Your task to perform on an android device: turn off location history Image 0: 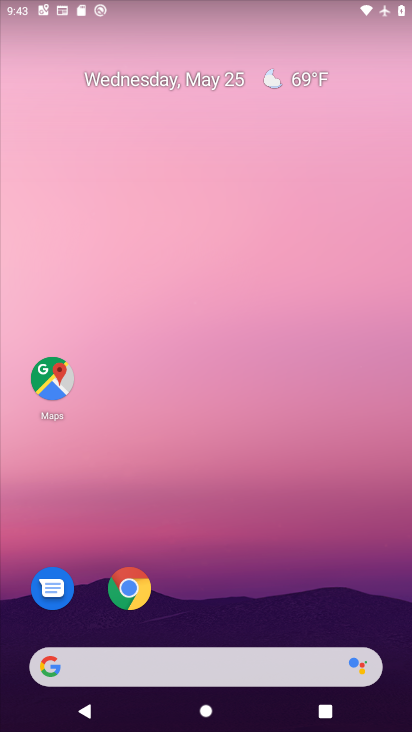
Step 0: drag from (362, 598) to (352, 297)
Your task to perform on an android device: turn off location history Image 1: 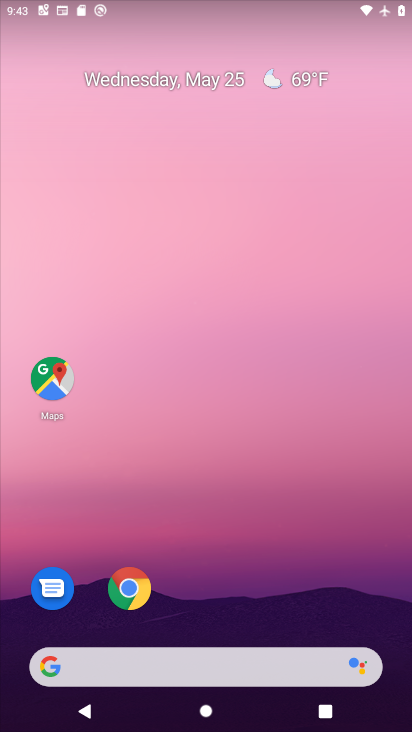
Step 1: drag from (322, 564) to (356, 186)
Your task to perform on an android device: turn off location history Image 2: 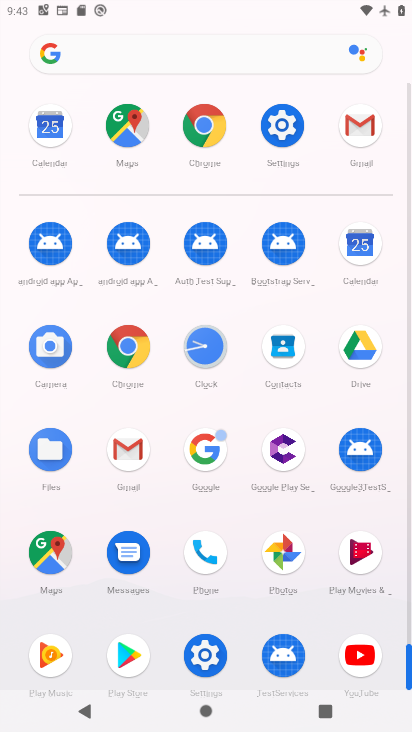
Step 2: click (284, 133)
Your task to perform on an android device: turn off location history Image 3: 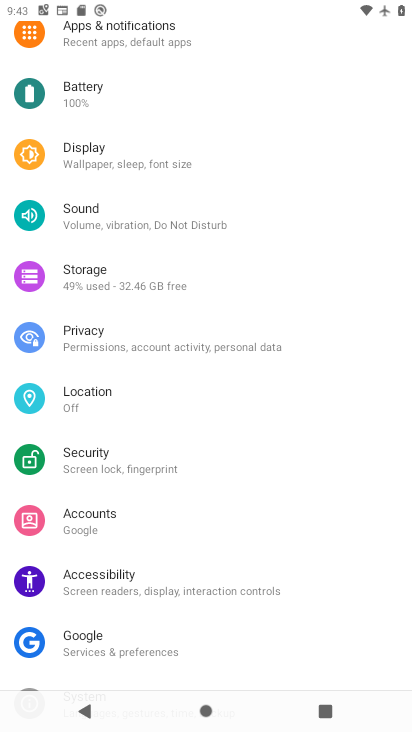
Step 3: drag from (344, 233) to (341, 300)
Your task to perform on an android device: turn off location history Image 4: 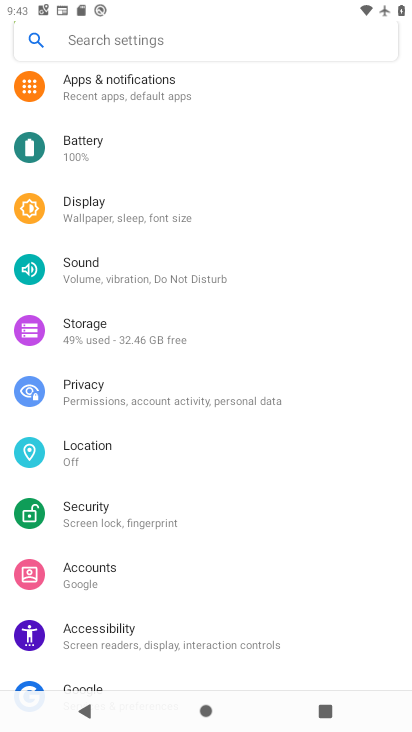
Step 4: drag from (322, 176) to (323, 267)
Your task to perform on an android device: turn off location history Image 5: 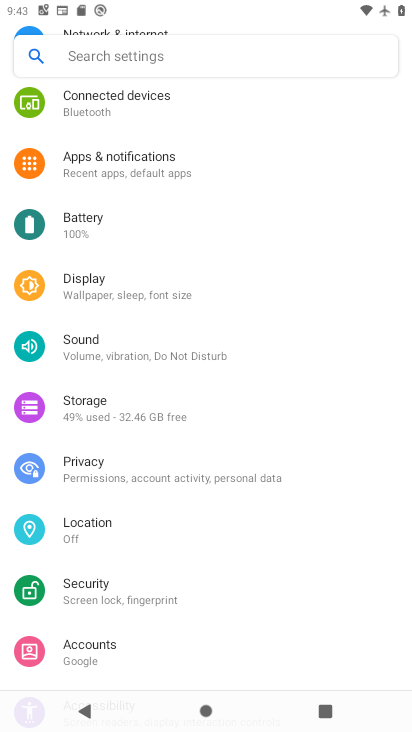
Step 5: drag from (328, 168) to (335, 253)
Your task to perform on an android device: turn off location history Image 6: 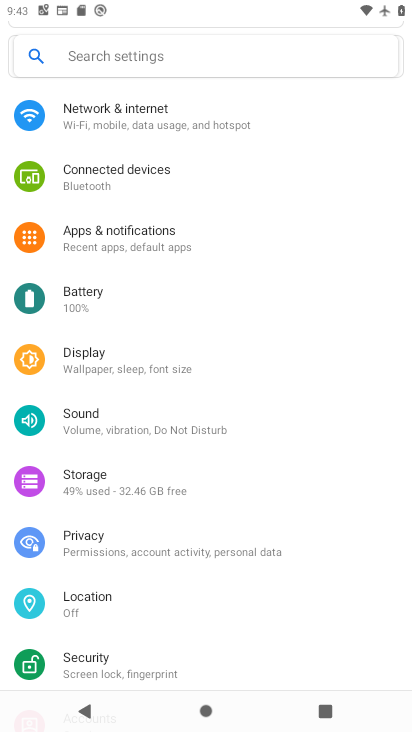
Step 6: drag from (338, 162) to (342, 272)
Your task to perform on an android device: turn off location history Image 7: 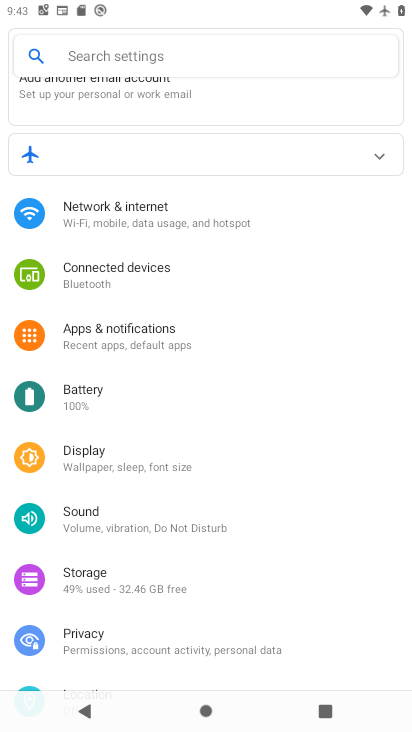
Step 7: drag from (325, 520) to (348, 412)
Your task to perform on an android device: turn off location history Image 8: 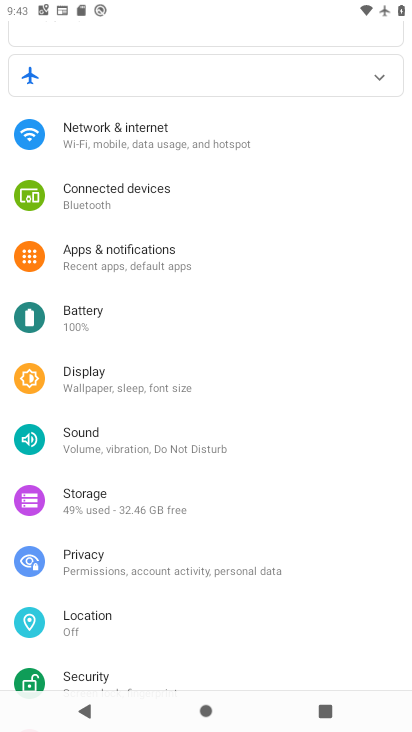
Step 8: drag from (362, 505) to (376, 401)
Your task to perform on an android device: turn off location history Image 9: 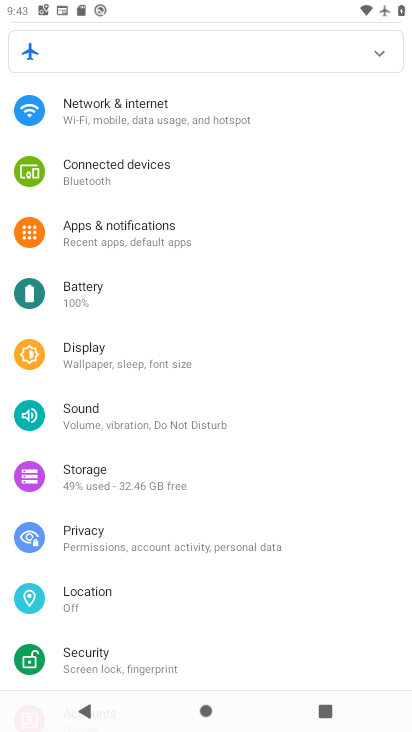
Step 9: drag from (350, 548) to (355, 463)
Your task to perform on an android device: turn off location history Image 10: 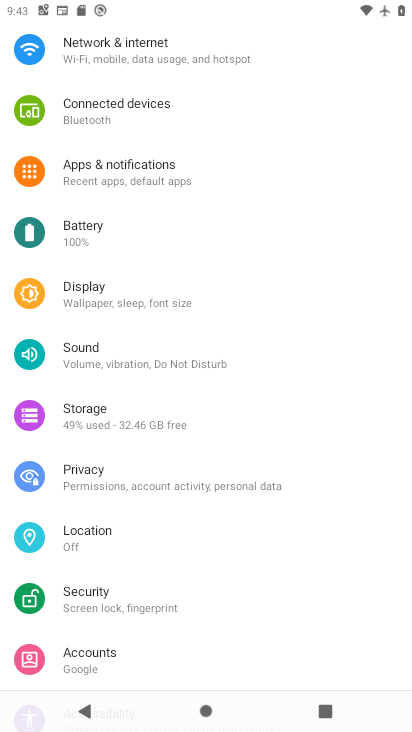
Step 10: drag from (349, 550) to (353, 456)
Your task to perform on an android device: turn off location history Image 11: 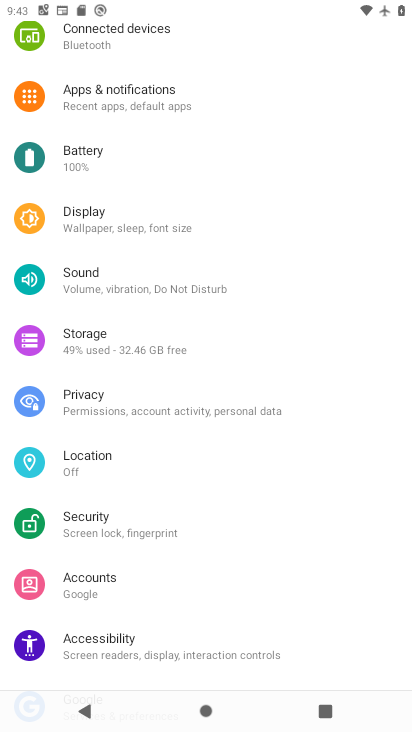
Step 11: click (179, 477)
Your task to perform on an android device: turn off location history Image 12: 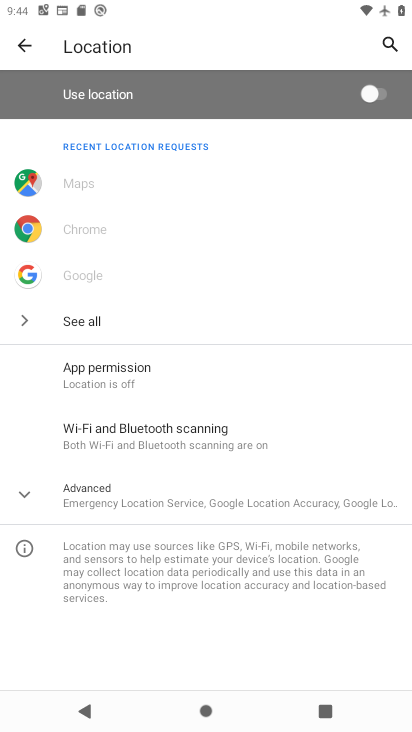
Step 12: click (179, 502)
Your task to perform on an android device: turn off location history Image 13: 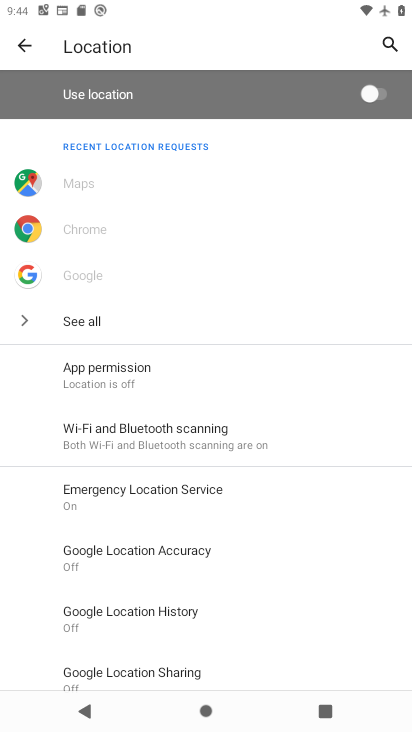
Step 13: task complete